Your task to perform on an android device: Empty the shopping cart on bestbuy.com. Add logitech g pro to the cart on bestbuy.com, then select checkout. Image 0: 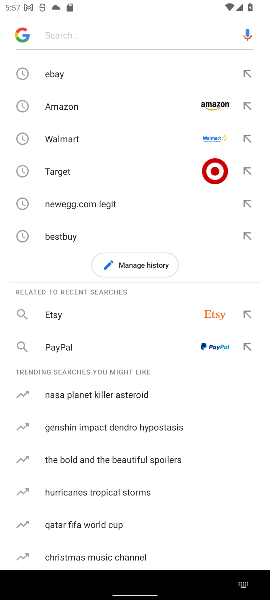
Step 0: press home button
Your task to perform on an android device: Empty the shopping cart on bestbuy.com. Add logitech g pro to the cart on bestbuy.com, then select checkout. Image 1: 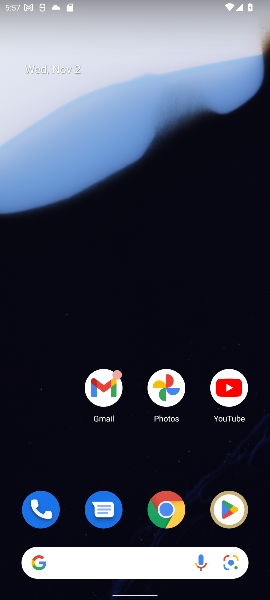
Step 1: click (146, 560)
Your task to perform on an android device: Empty the shopping cart on bestbuy.com. Add logitech g pro to the cart on bestbuy.com, then select checkout. Image 2: 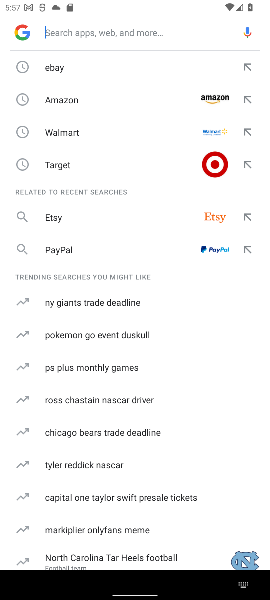
Step 2: type "bestbuy.com"
Your task to perform on an android device: Empty the shopping cart on bestbuy.com. Add logitech g pro to the cart on bestbuy.com, then select checkout. Image 3: 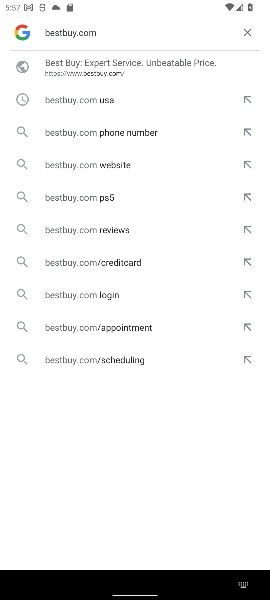
Step 3: click (84, 59)
Your task to perform on an android device: Empty the shopping cart on bestbuy.com. Add logitech g pro to the cart on bestbuy.com, then select checkout. Image 4: 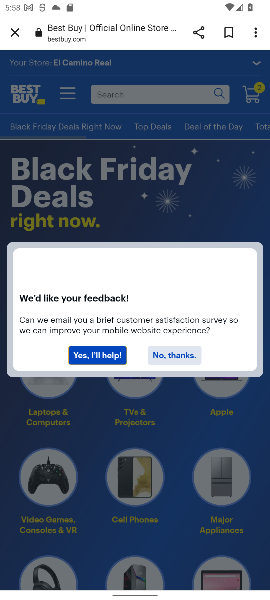
Step 4: click (256, 92)
Your task to perform on an android device: Empty the shopping cart on bestbuy.com. Add logitech g pro to the cart on bestbuy.com, then select checkout. Image 5: 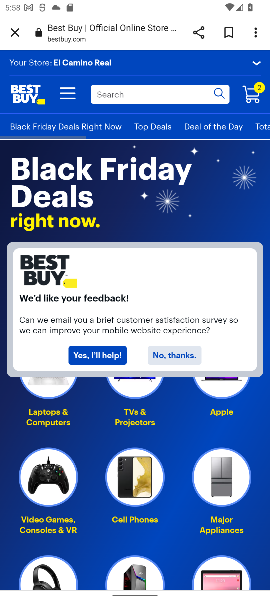
Step 5: click (157, 357)
Your task to perform on an android device: Empty the shopping cart on bestbuy.com. Add logitech g pro to the cart on bestbuy.com, then select checkout. Image 6: 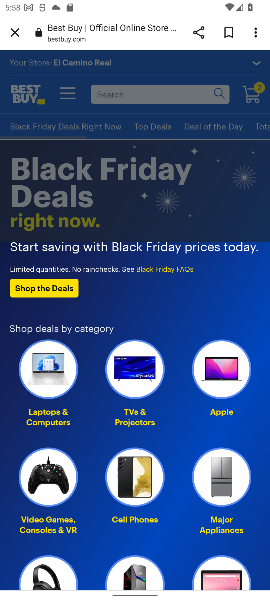
Step 6: click (254, 93)
Your task to perform on an android device: Empty the shopping cart on bestbuy.com. Add logitech g pro to the cart on bestbuy.com, then select checkout. Image 7: 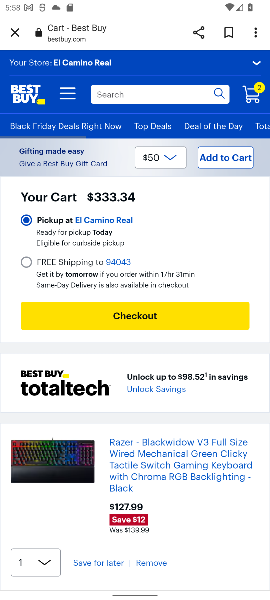
Step 7: click (148, 561)
Your task to perform on an android device: Empty the shopping cart on bestbuy.com. Add logitech g pro to the cart on bestbuy.com, then select checkout. Image 8: 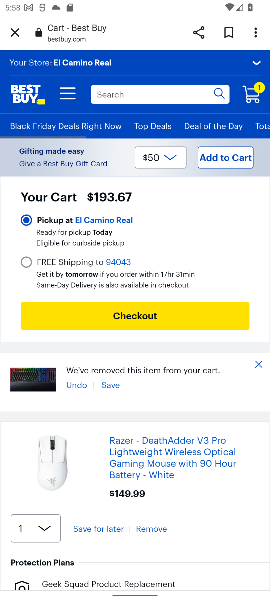
Step 8: click (148, 530)
Your task to perform on an android device: Empty the shopping cart on bestbuy.com. Add logitech g pro to the cart on bestbuy.com, then select checkout. Image 9: 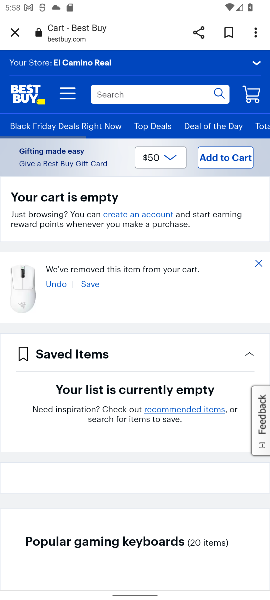
Step 9: click (118, 95)
Your task to perform on an android device: Empty the shopping cart on bestbuy.com. Add logitech g pro to the cart on bestbuy.com, then select checkout. Image 10: 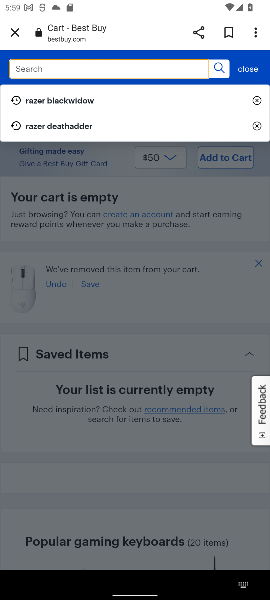
Step 10: type "logitech g pro"
Your task to perform on an android device: Empty the shopping cart on bestbuy.com. Add logitech g pro to the cart on bestbuy.com, then select checkout. Image 11: 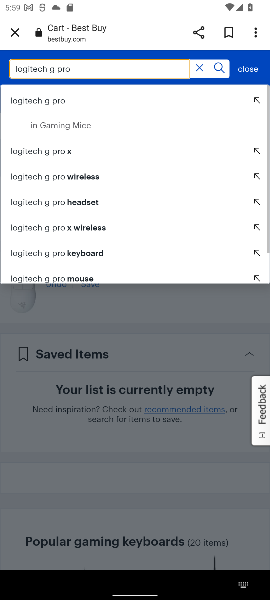
Step 11: click (60, 99)
Your task to perform on an android device: Empty the shopping cart on bestbuy.com. Add logitech g pro to the cart on bestbuy.com, then select checkout. Image 12: 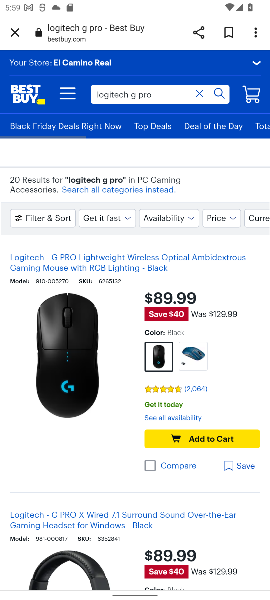
Step 12: click (211, 438)
Your task to perform on an android device: Empty the shopping cart on bestbuy.com. Add logitech g pro to the cart on bestbuy.com, then select checkout. Image 13: 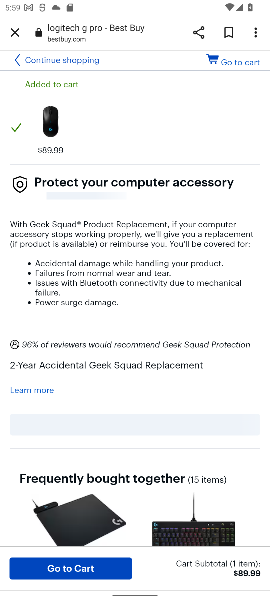
Step 13: click (64, 565)
Your task to perform on an android device: Empty the shopping cart on bestbuy.com. Add logitech g pro to the cart on bestbuy.com, then select checkout. Image 14: 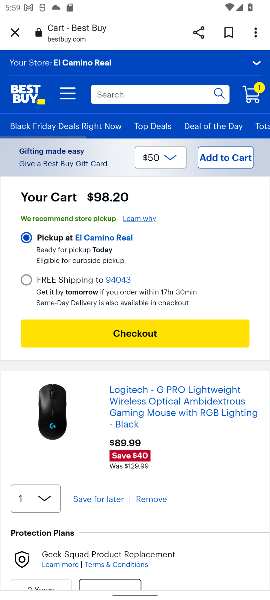
Step 14: click (131, 333)
Your task to perform on an android device: Empty the shopping cart on bestbuy.com. Add logitech g pro to the cart on bestbuy.com, then select checkout. Image 15: 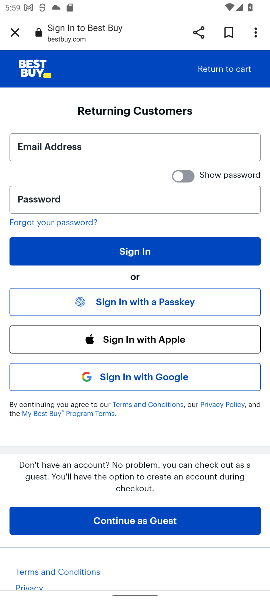
Step 15: task complete